Your task to perform on an android device: Go to Android settings Image 0: 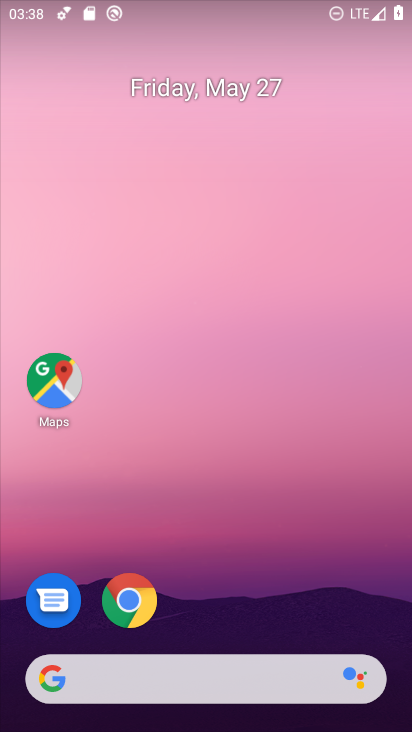
Step 0: drag from (191, 729) to (207, 9)
Your task to perform on an android device: Go to Android settings Image 1: 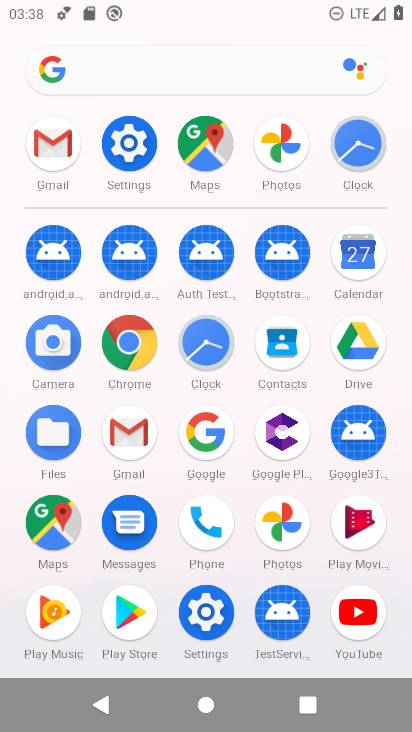
Step 1: click (134, 140)
Your task to perform on an android device: Go to Android settings Image 2: 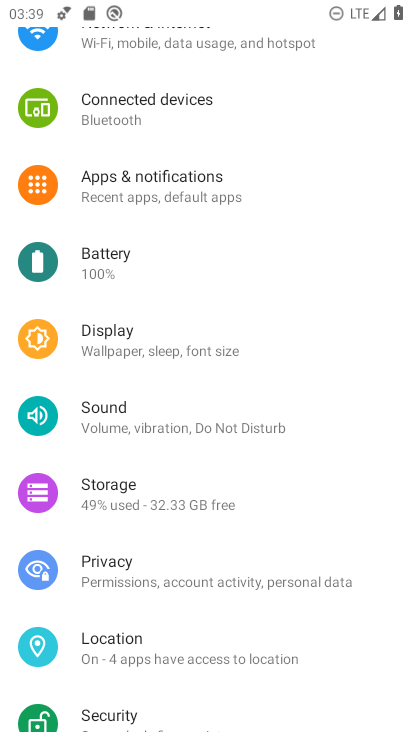
Step 2: task complete